Your task to perform on an android device: Open my contact list Image 0: 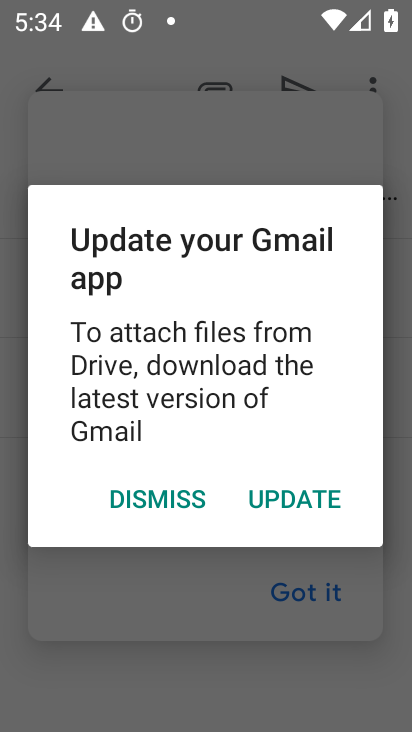
Step 0: press home button
Your task to perform on an android device: Open my contact list Image 1: 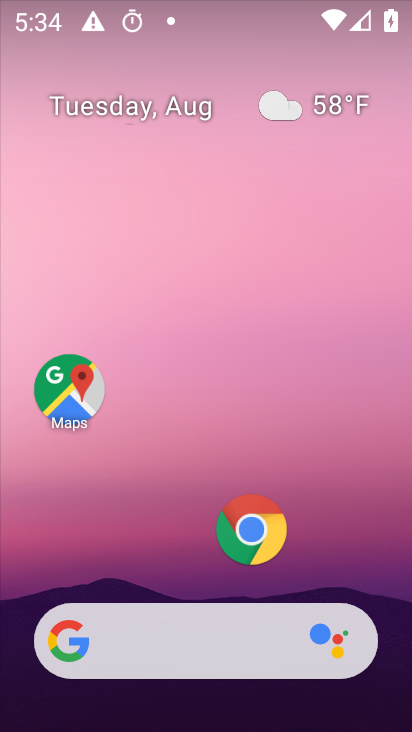
Step 1: drag from (176, 435) to (219, 182)
Your task to perform on an android device: Open my contact list Image 2: 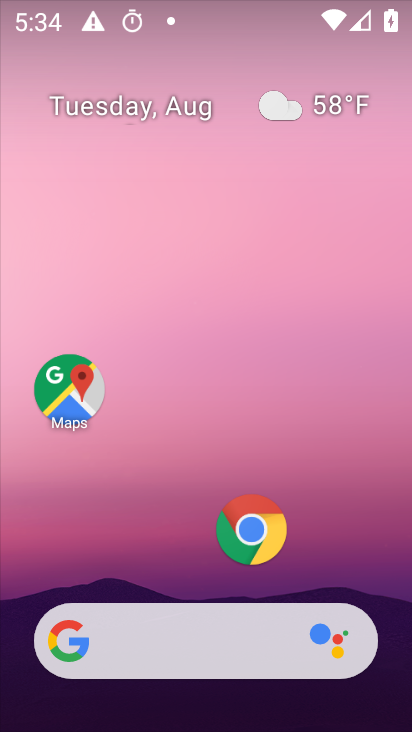
Step 2: drag from (173, 542) to (209, 161)
Your task to perform on an android device: Open my contact list Image 3: 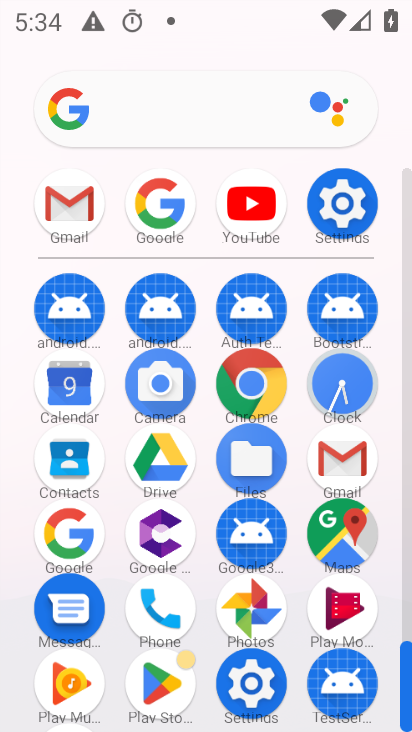
Step 3: click (84, 456)
Your task to perform on an android device: Open my contact list Image 4: 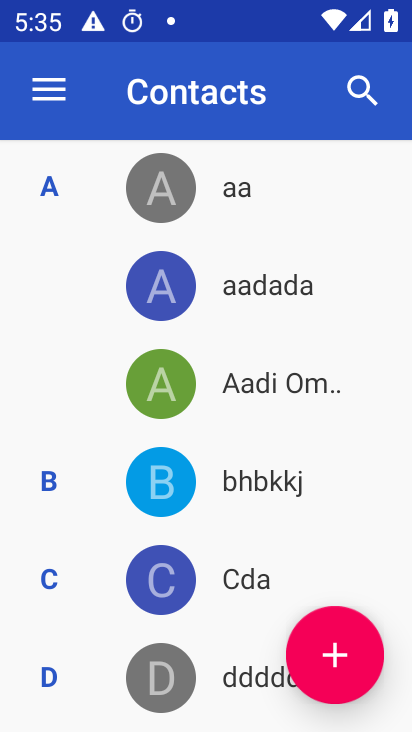
Step 4: task complete